Your task to perform on an android device: Open Google Chrome and click the shortcut for Amazon.com Image 0: 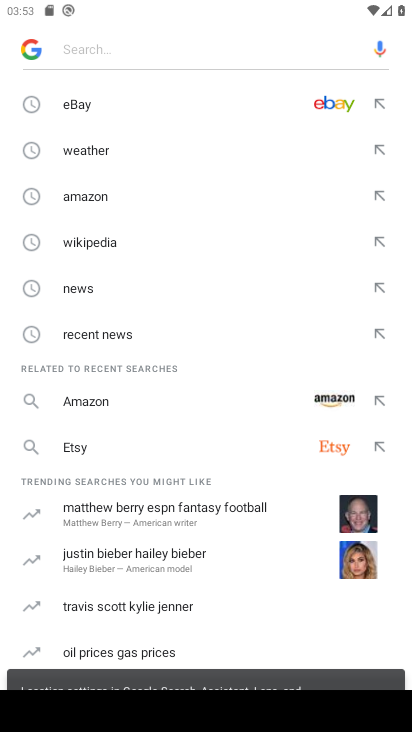
Step 0: press home button
Your task to perform on an android device: Open Google Chrome and click the shortcut for Amazon.com Image 1: 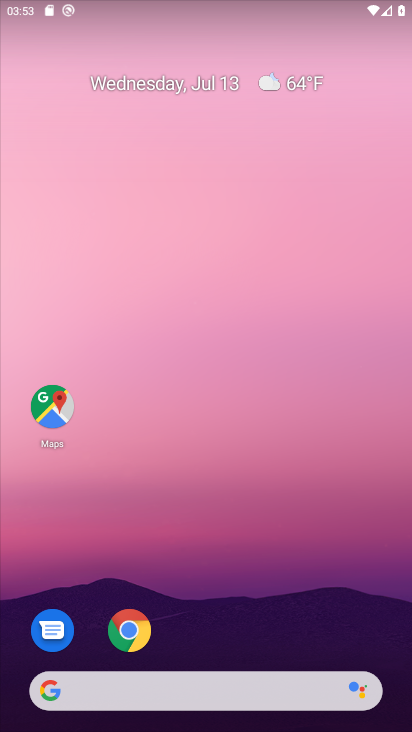
Step 1: click (131, 628)
Your task to perform on an android device: Open Google Chrome and click the shortcut for Amazon.com Image 2: 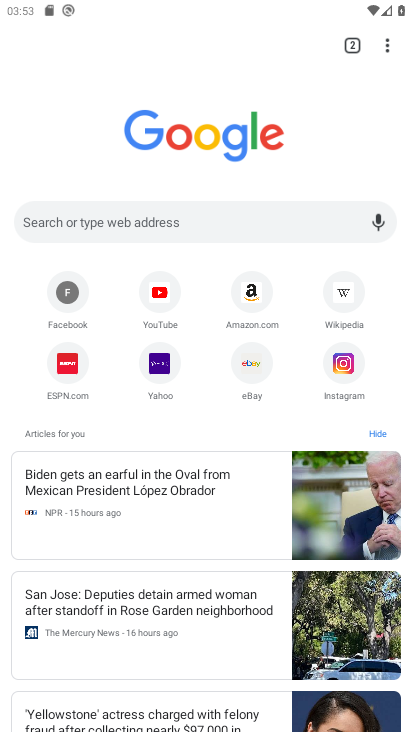
Step 2: click (391, 41)
Your task to perform on an android device: Open Google Chrome and click the shortcut for Amazon.com Image 3: 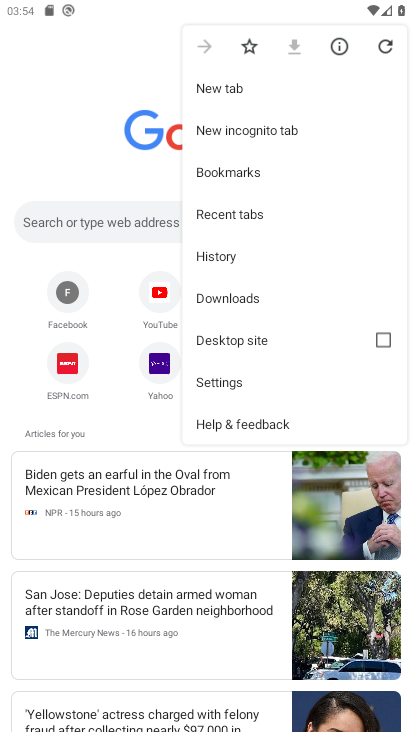
Step 3: click (3, 397)
Your task to perform on an android device: Open Google Chrome and click the shortcut for Amazon.com Image 4: 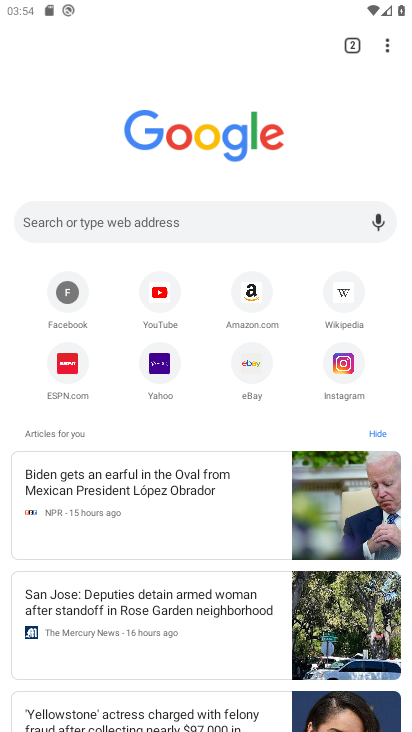
Step 4: click (260, 293)
Your task to perform on an android device: Open Google Chrome and click the shortcut for Amazon.com Image 5: 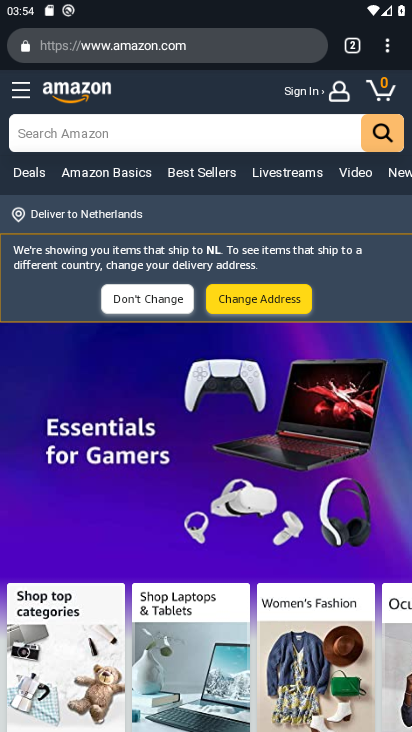
Step 5: task complete